Your task to perform on an android device: turn on location history Image 0: 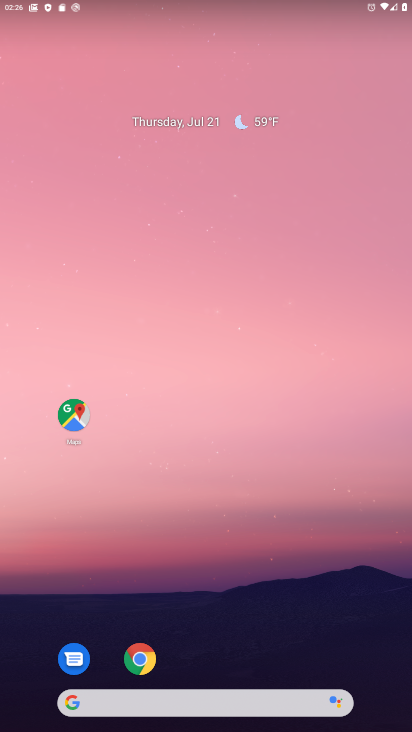
Step 0: drag from (308, 636) to (246, 126)
Your task to perform on an android device: turn on location history Image 1: 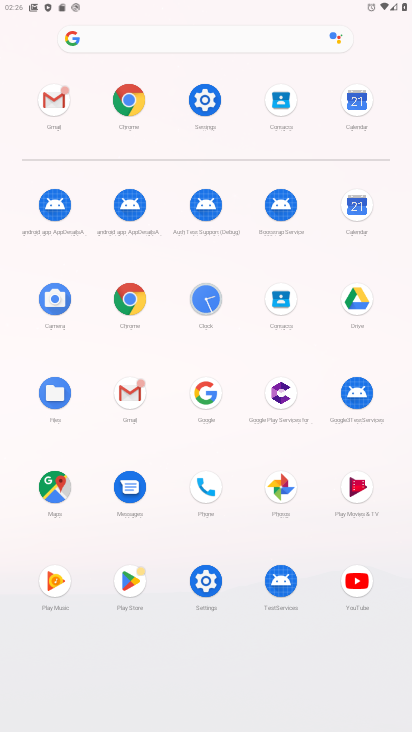
Step 1: click (204, 105)
Your task to perform on an android device: turn on location history Image 2: 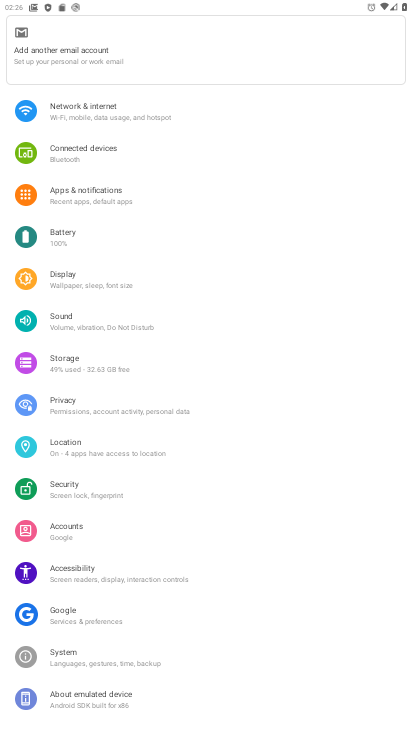
Step 2: click (86, 449)
Your task to perform on an android device: turn on location history Image 3: 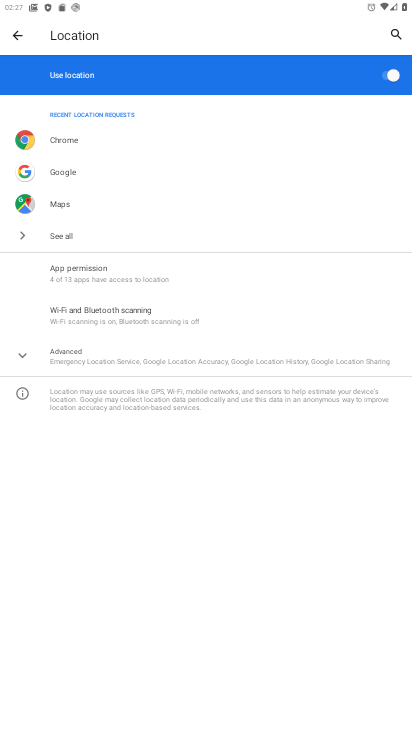
Step 3: click (106, 363)
Your task to perform on an android device: turn on location history Image 4: 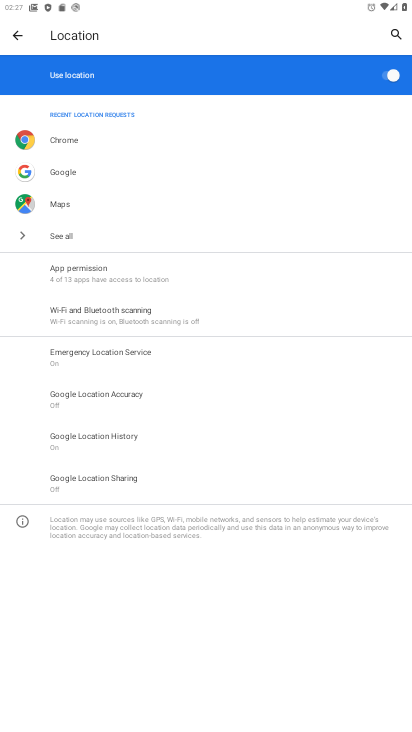
Step 4: click (108, 435)
Your task to perform on an android device: turn on location history Image 5: 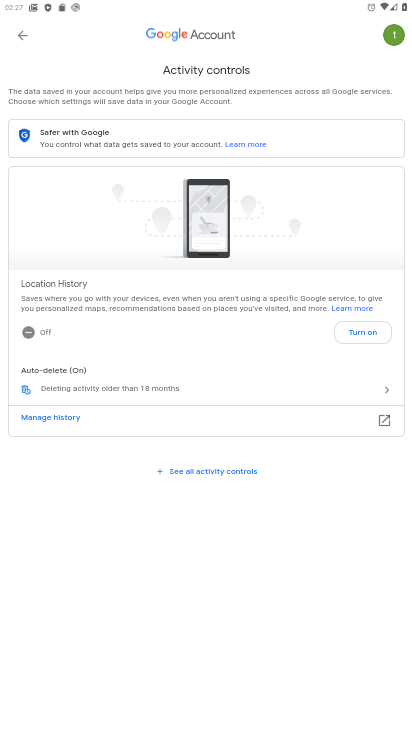
Step 5: click (371, 330)
Your task to perform on an android device: turn on location history Image 6: 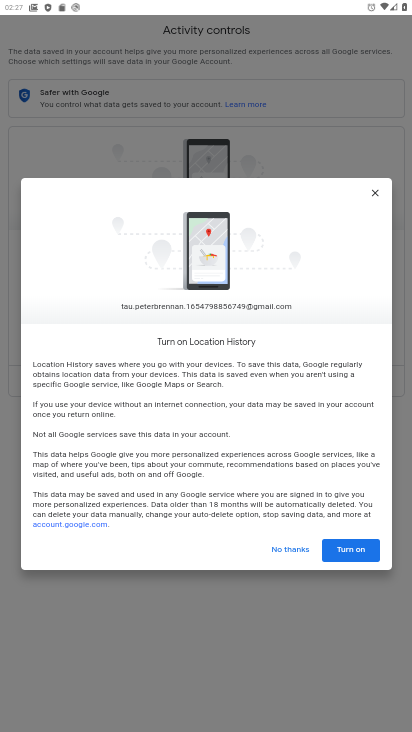
Step 6: click (353, 538)
Your task to perform on an android device: turn on location history Image 7: 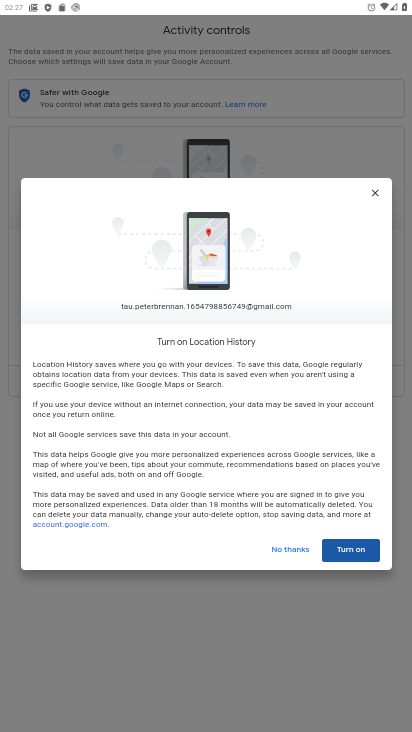
Step 7: click (370, 550)
Your task to perform on an android device: turn on location history Image 8: 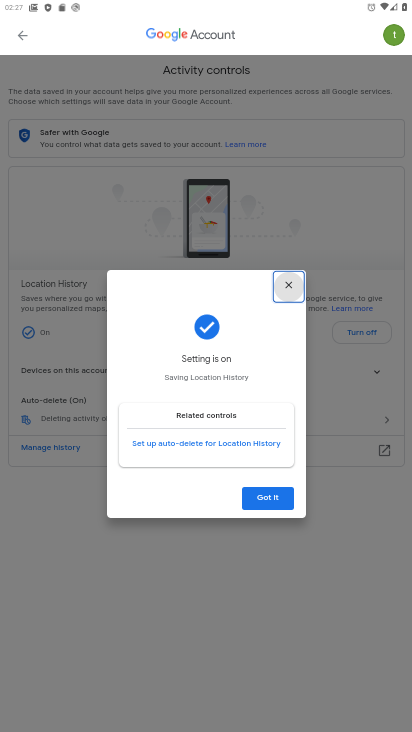
Step 8: task complete